Your task to perform on an android device: Open privacy settings Image 0: 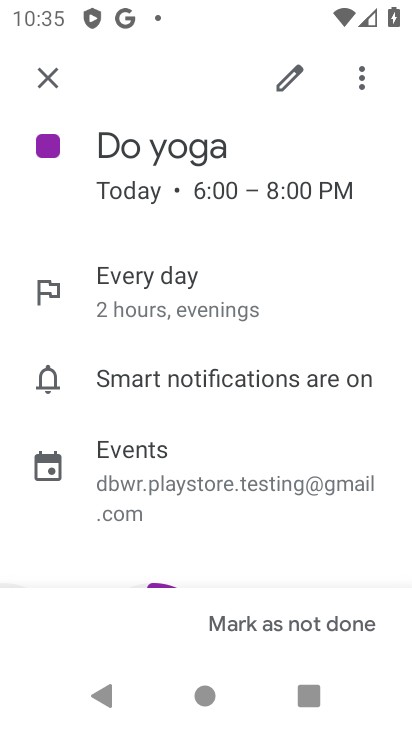
Step 0: press home button
Your task to perform on an android device: Open privacy settings Image 1: 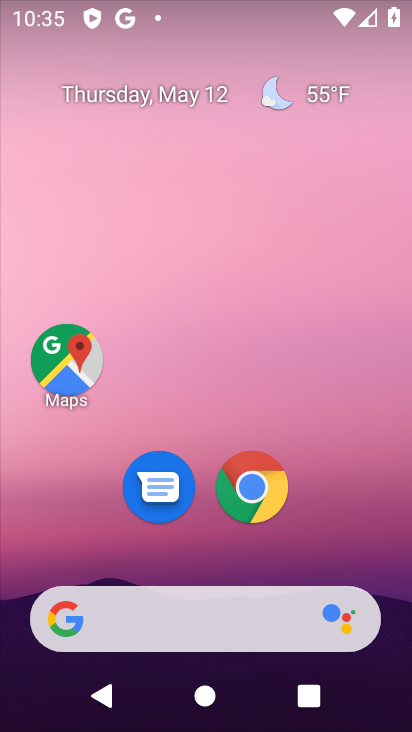
Step 1: drag from (373, 566) to (294, 28)
Your task to perform on an android device: Open privacy settings Image 2: 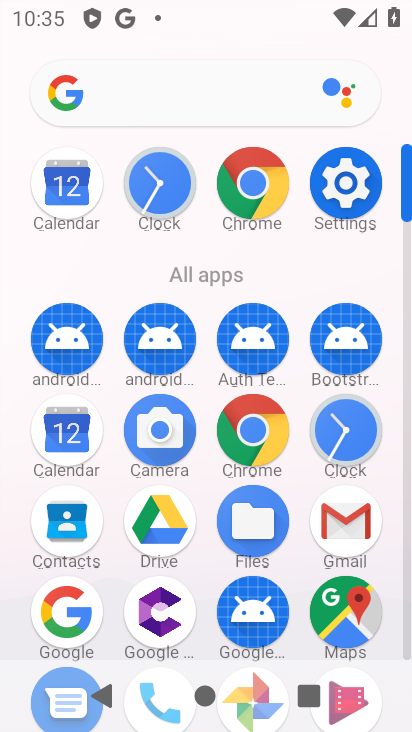
Step 2: click (359, 184)
Your task to perform on an android device: Open privacy settings Image 3: 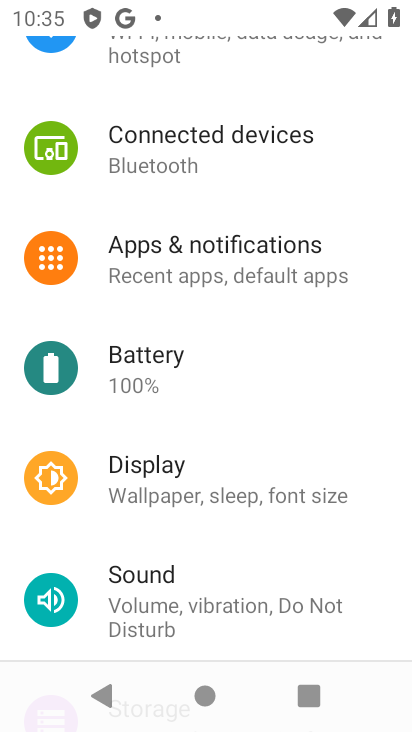
Step 3: drag from (315, 555) to (322, 248)
Your task to perform on an android device: Open privacy settings Image 4: 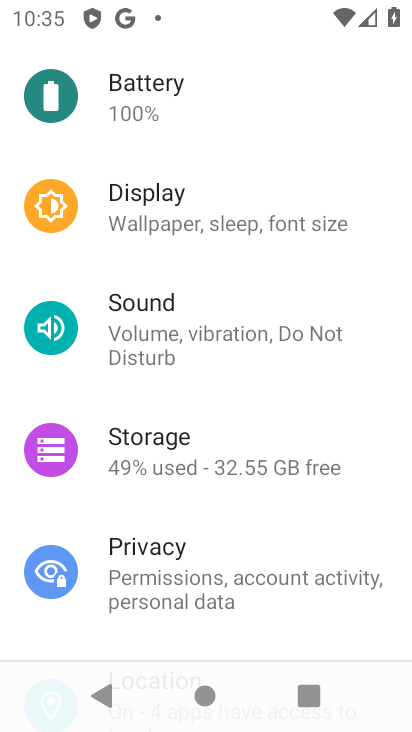
Step 4: click (148, 585)
Your task to perform on an android device: Open privacy settings Image 5: 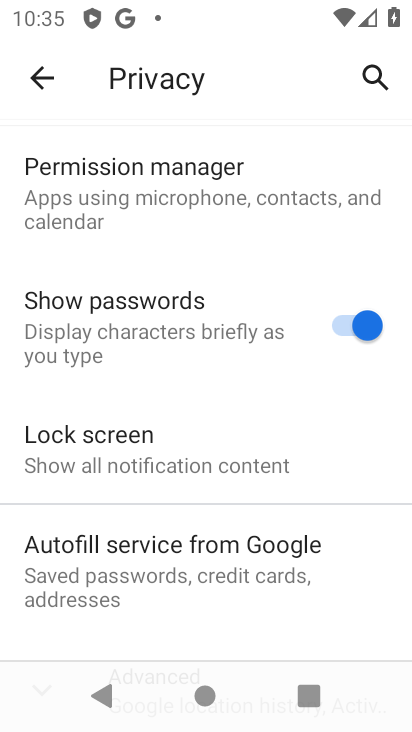
Step 5: task complete